Your task to perform on an android device: See recent photos Image 0: 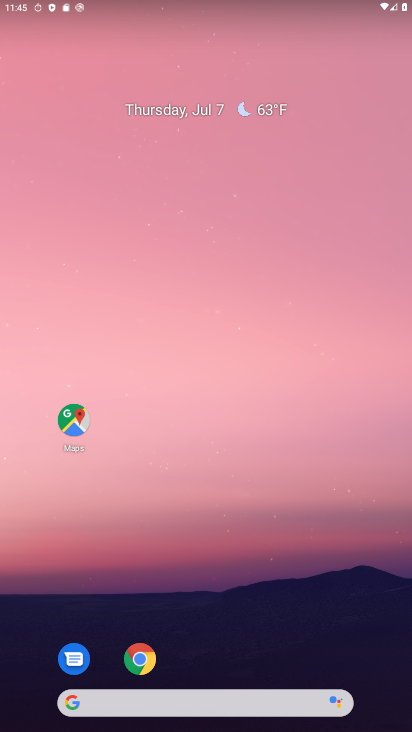
Step 0: drag from (194, 671) to (268, 32)
Your task to perform on an android device: See recent photos Image 1: 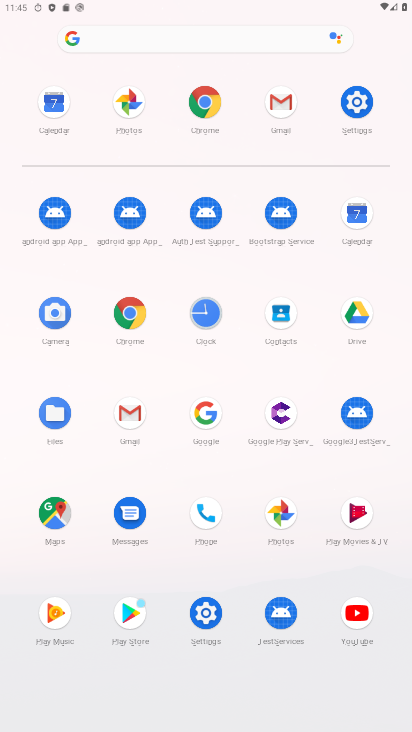
Step 1: click (286, 521)
Your task to perform on an android device: See recent photos Image 2: 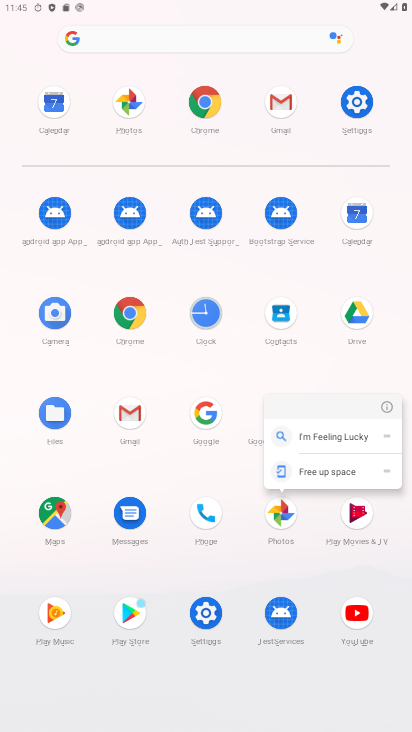
Step 2: click (277, 522)
Your task to perform on an android device: See recent photos Image 3: 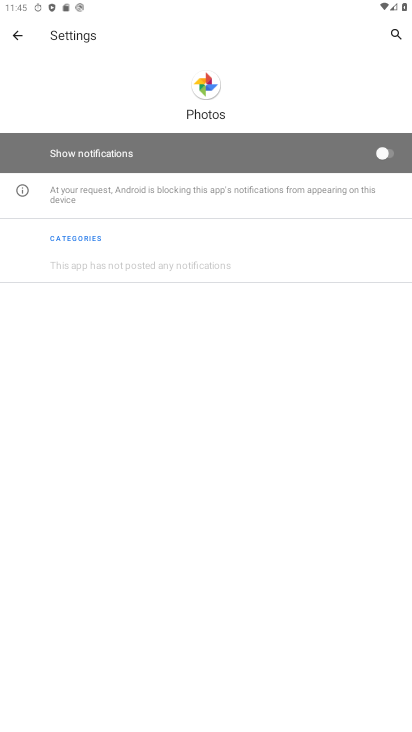
Step 3: click (18, 39)
Your task to perform on an android device: See recent photos Image 4: 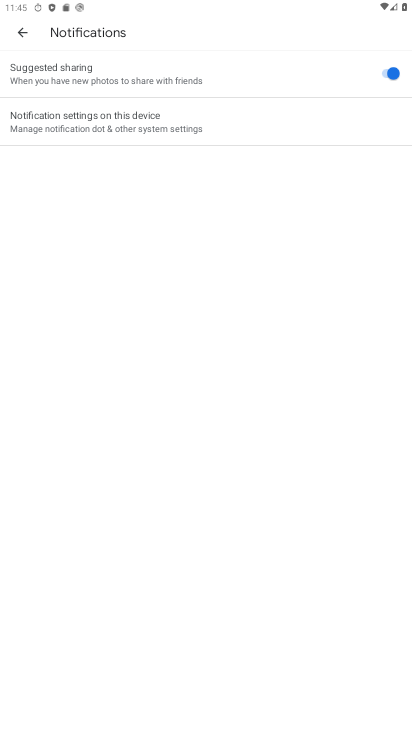
Step 4: click (17, 38)
Your task to perform on an android device: See recent photos Image 5: 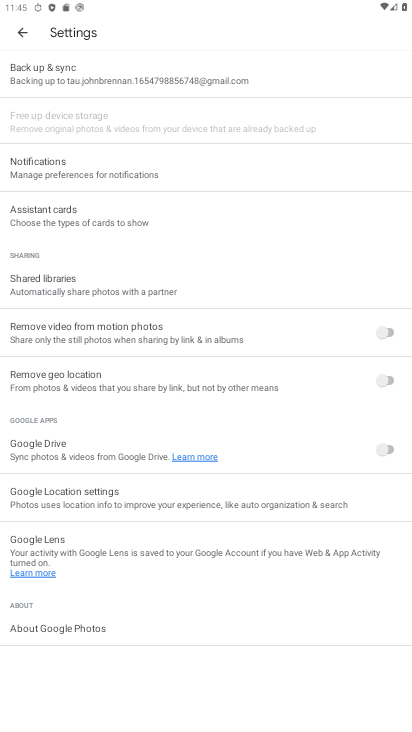
Step 5: click (17, 38)
Your task to perform on an android device: See recent photos Image 6: 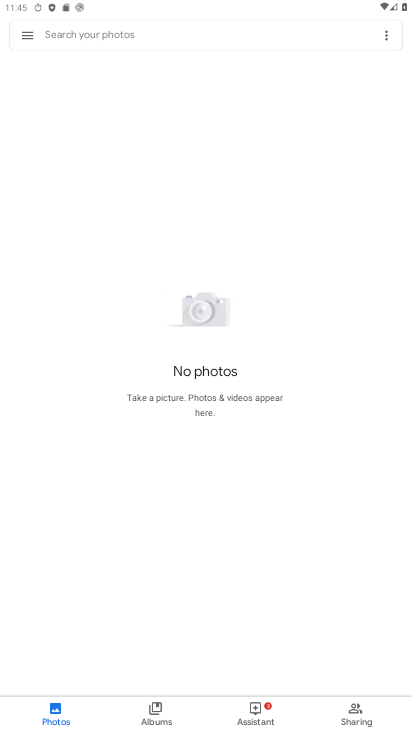
Step 6: task complete